Your task to perform on an android device: Go to Maps Image 0: 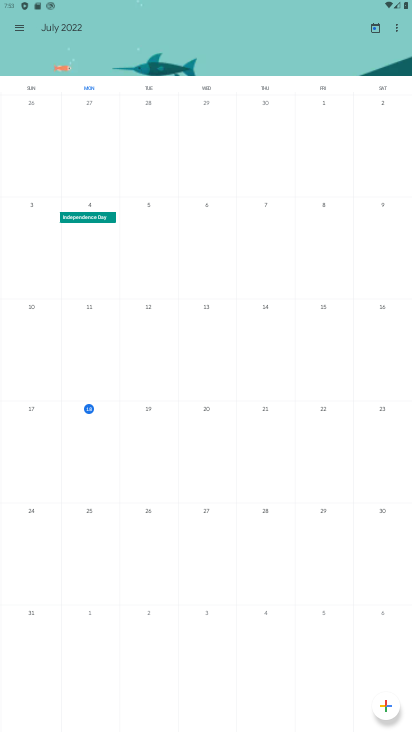
Step 0: press home button
Your task to perform on an android device: Go to Maps Image 1: 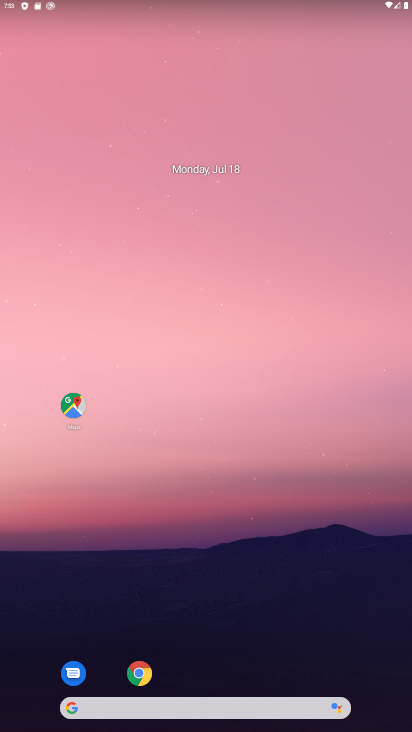
Step 1: click (67, 409)
Your task to perform on an android device: Go to Maps Image 2: 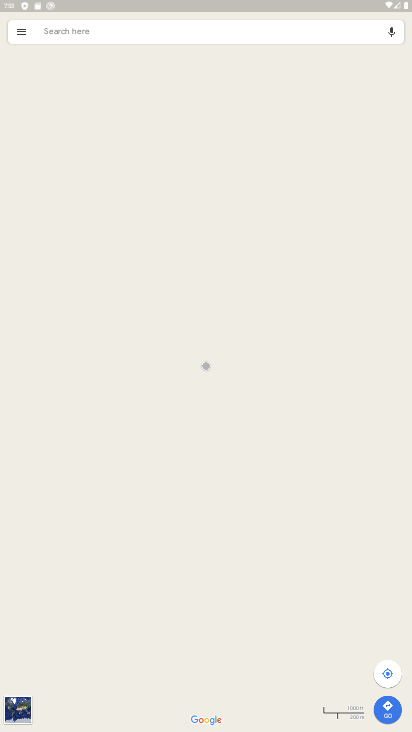
Step 2: task complete